Your task to perform on an android device: open app "ZOOM Cloud Meetings" Image 0: 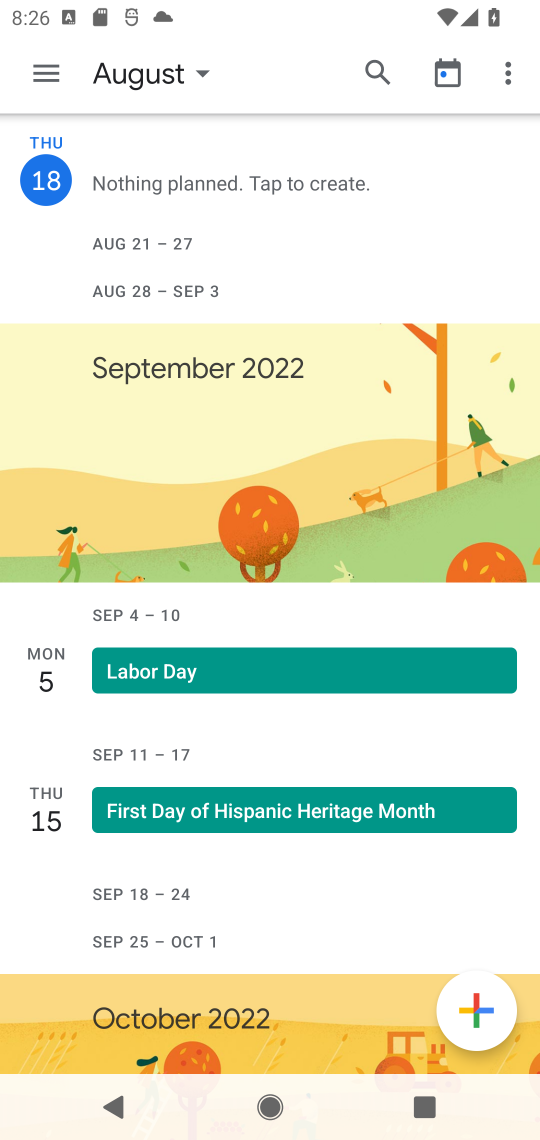
Step 0: press home button
Your task to perform on an android device: open app "ZOOM Cloud Meetings" Image 1: 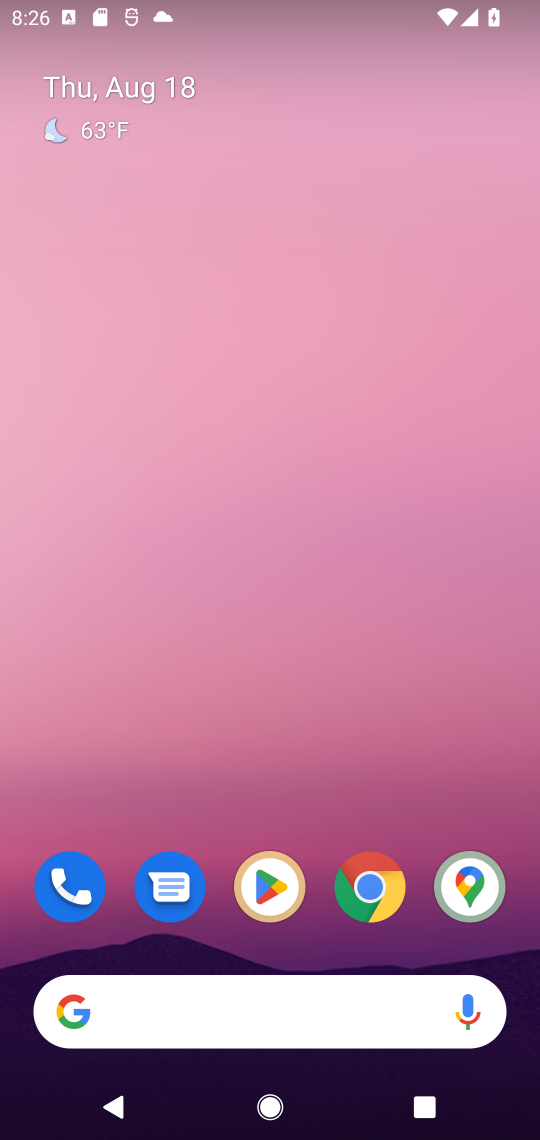
Step 1: click (269, 897)
Your task to perform on an android device: open app "ZOOM Cloud Meetings" Image 2: 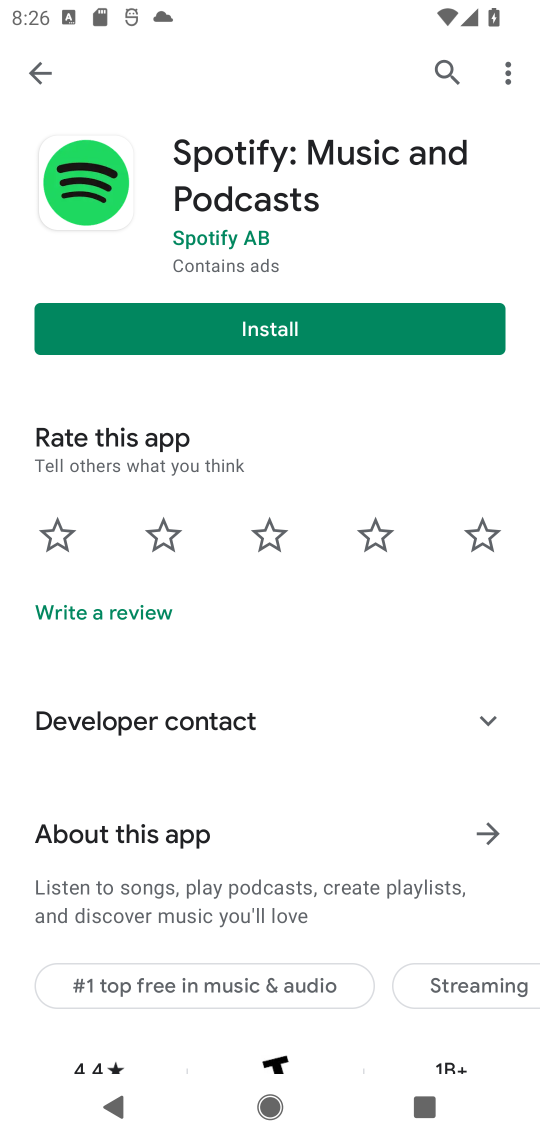
Step 2: click (445, 68)
Your task to perform on an android device: open app "ZOOM Cloud Meetings" Image 3: 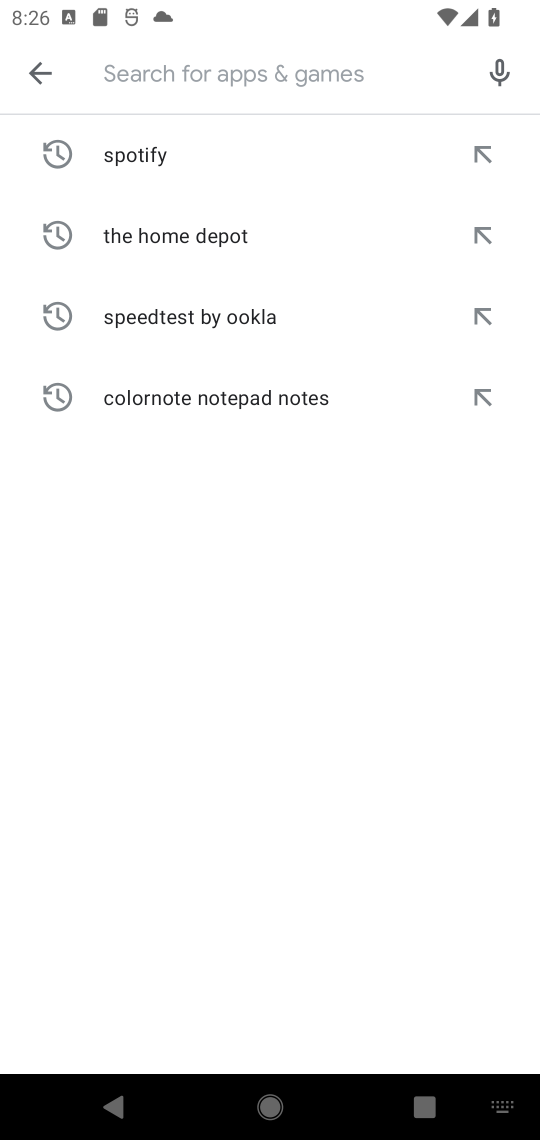
Step 3: type "ZOOM Cloud Meeting"
Your task to perform on an android device: open app "ZOOM Cloud Meetings" Image 4: 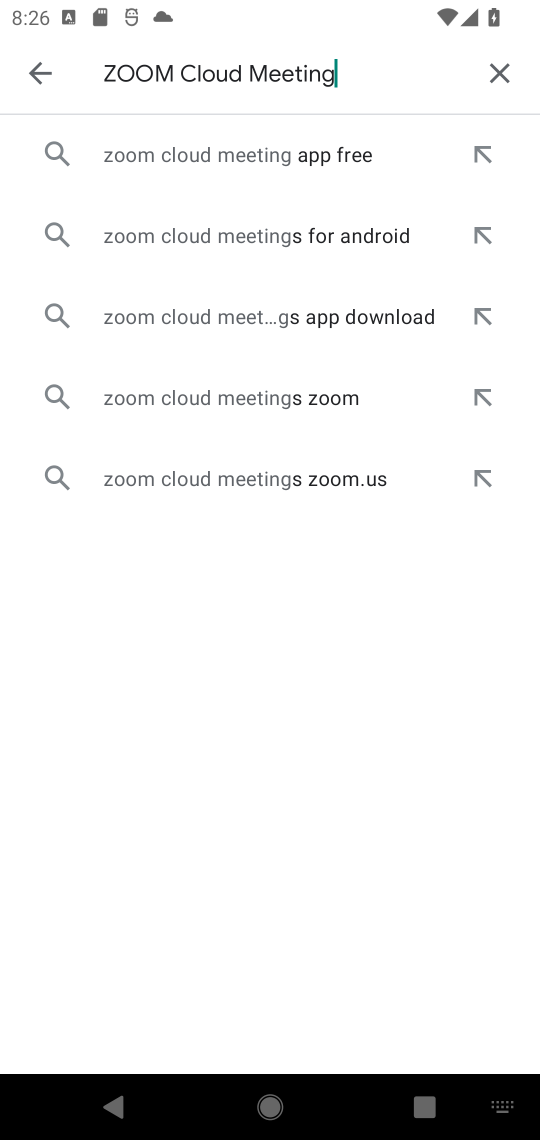
Step 4: click (207, 155)
Your task to perform on an android device: open app "ZOOM Cloud Meetings" Image 5: 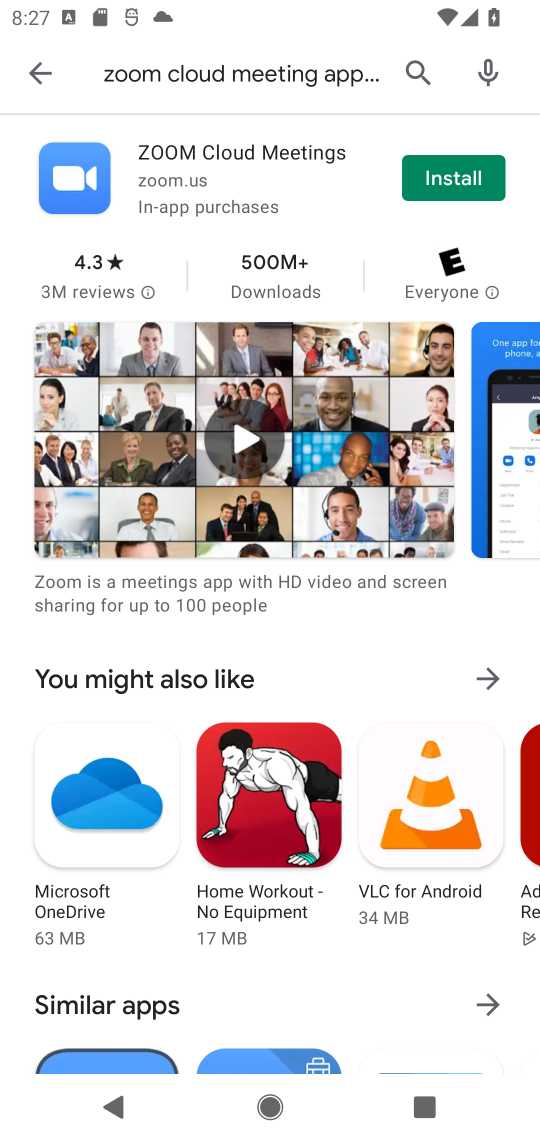
Step 5: task complete